Your task to perform on an android device: allow notifications from all sites in the chrome app Image 0: 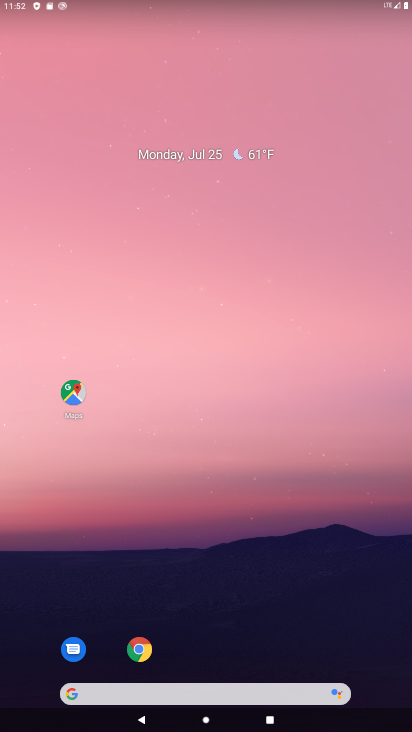
Step 0: drag from (204, 670) to (170, 61)
Your task to perform on an android device: allow notifications from all sites in the chrome app Image 1: 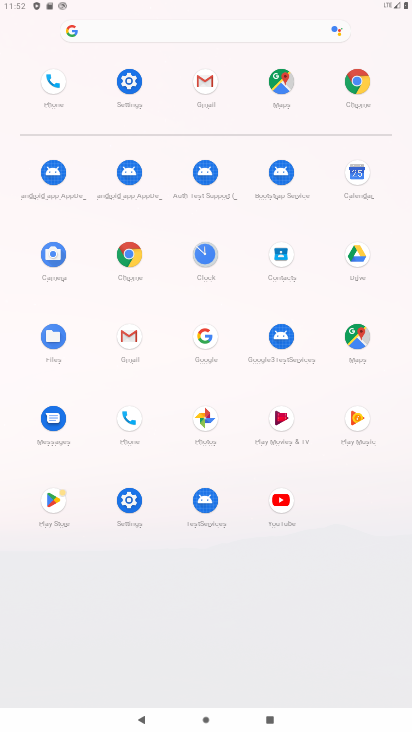
Step 1: click (363, 90)
Your task to perform on an android device: allow notifications from all sites in the chrome app Image 2: 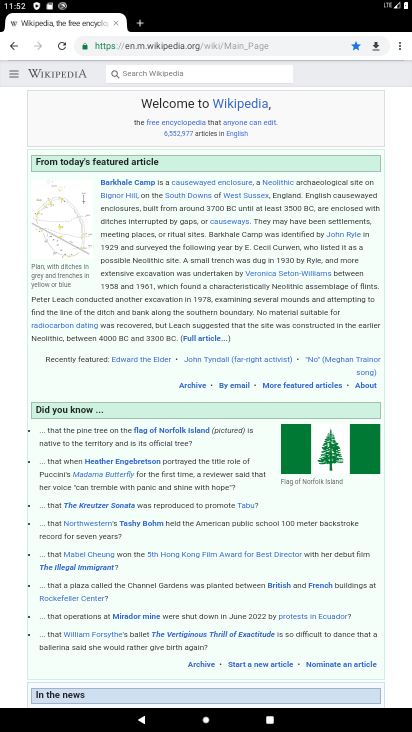
Step 2: click (397, 49)
Your task to perform on an android device: allow notifications from all sites in the chrome app Image 3: 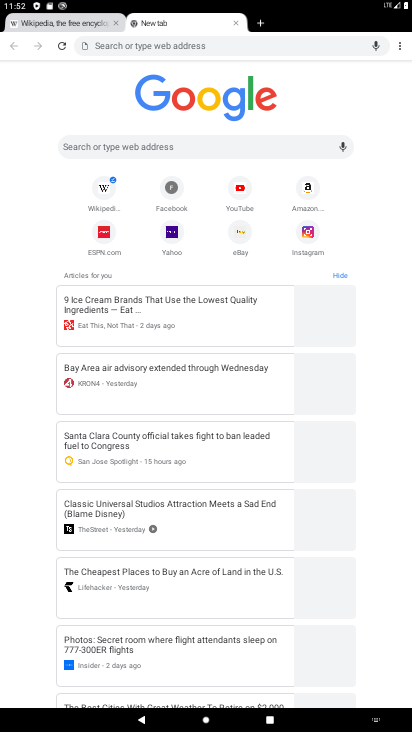
Step 3: drag from (397, 44) to (327, 215)
Your task to perform on an android device: allow notifications from all sites in the chrome app Image 4: 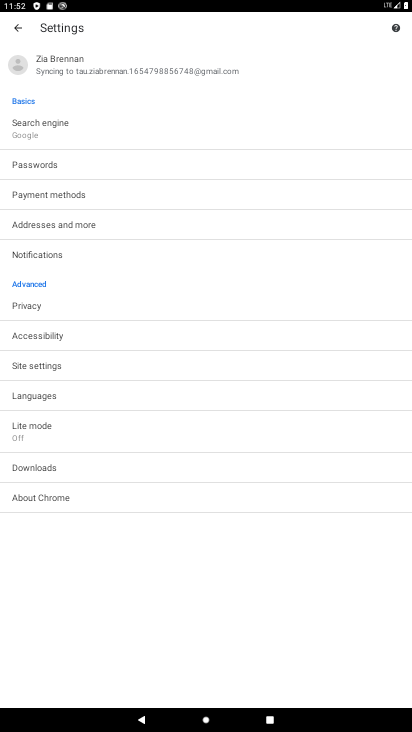
Step 4: click (37, 361)
Your task to perform on an android device: allow notifications from all sites in the chrome app Image 5: 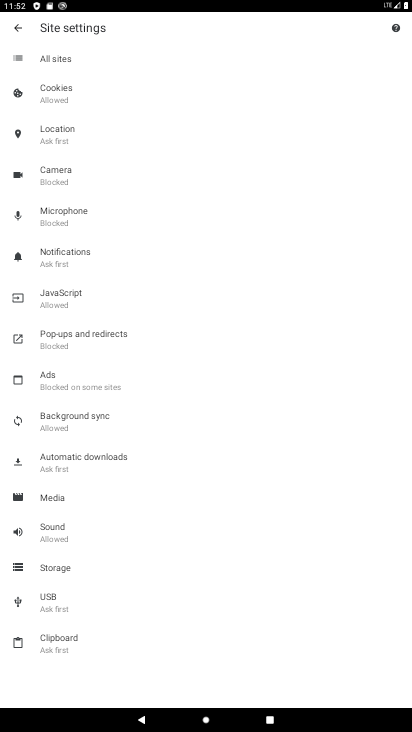
Step 5: click (77, 268)
Your task to perform on an android device: allow notifications from all sites in the chrome app Image 6: 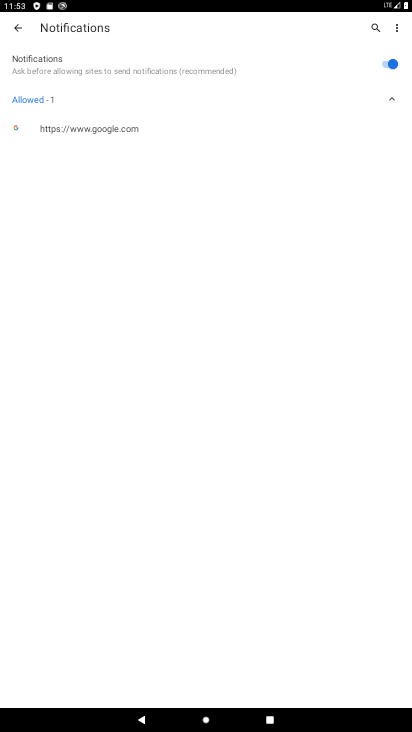
Step 6: task complete